Your task to perform on an android device: Find coffee shops on Maps Image 0: 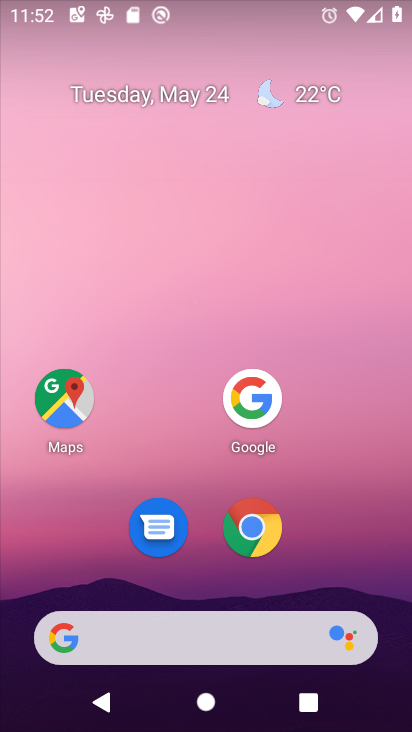
Step 0: click (70, 396)
Your task to perform on an android device: Find coffee shops on Maps Image 1: 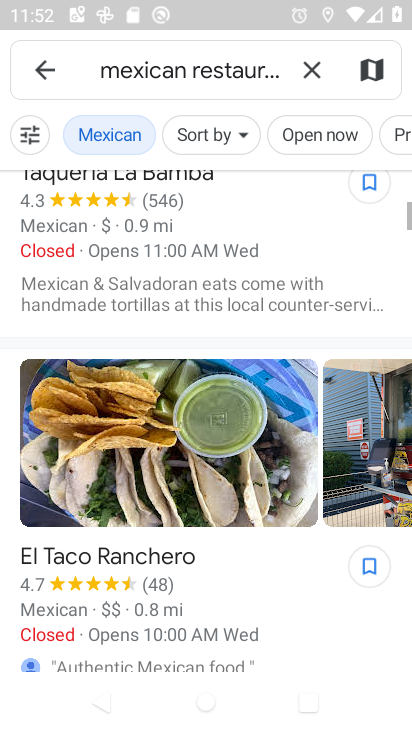
Step 1: click (317, 65)
Your task to perform on an android device: Find coffee shops on Maps Image 2: 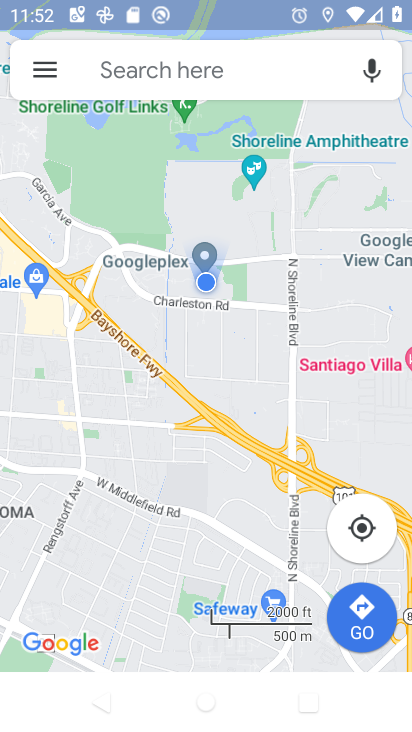
Step 2: click (255, 76)
Your task to perform on an android device: Find coffee shops on Maps Image 3: 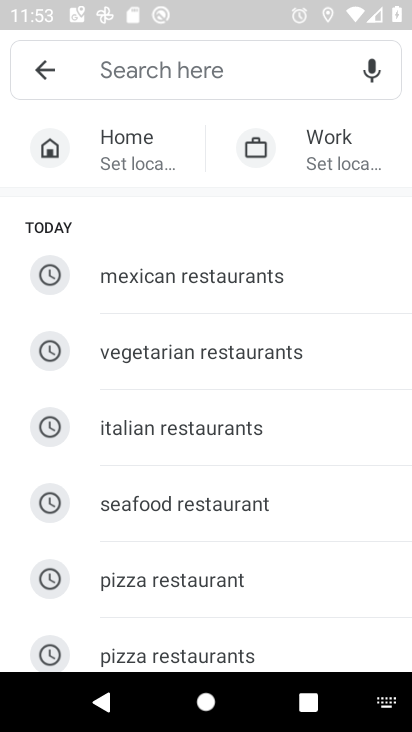
Step 3: drag from (257, 493) to (282, 165)
Your task to perform on an android device: Find coffee shops on Maps Image 4: 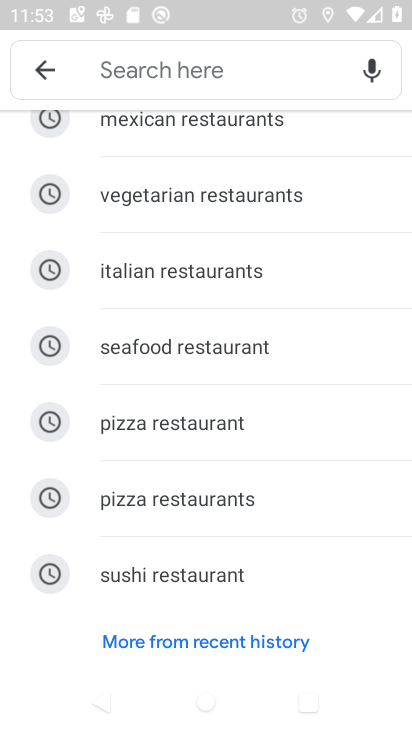
Step 4: type "coffee"
Your task to perform on an android device: Find coffee shops on Maps Image 5: 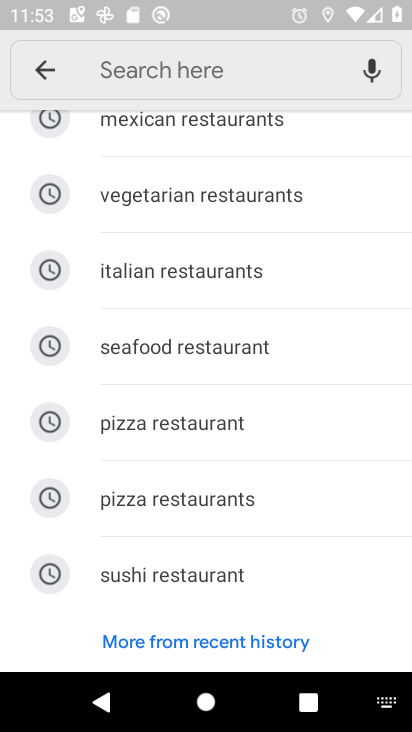
Step 5: click (230, 73)
Your task to perform on an android device: Find coffee shops on Maps Image 6: 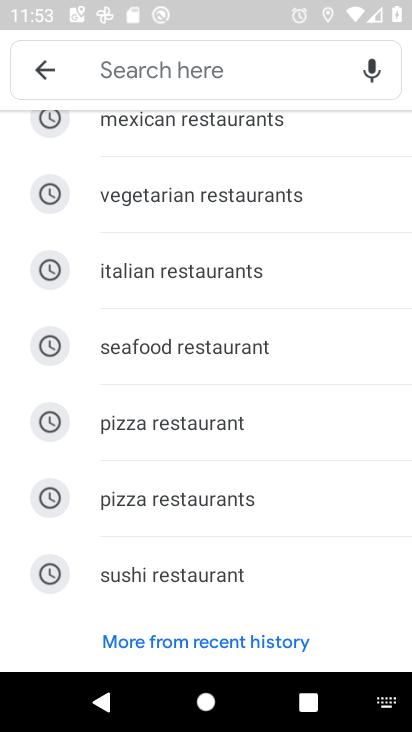
Step 6: type "coffee"
Your task to perform on an android device: Find coffee shops on Maps Image 7: 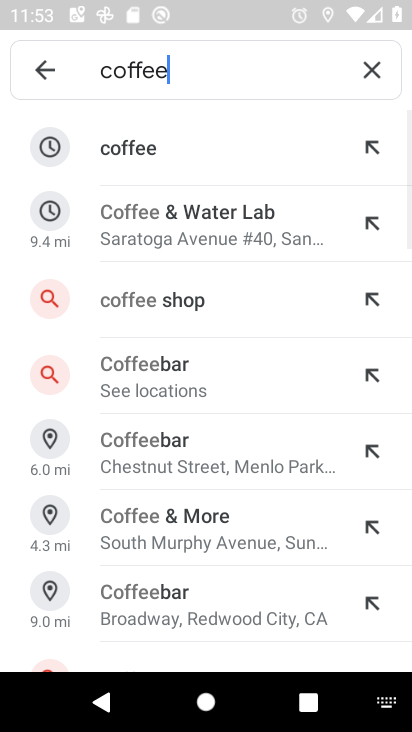
Step 7: click (161, 141)
Your task to perform on an android device: Find coffee shops on Maps Image 8: 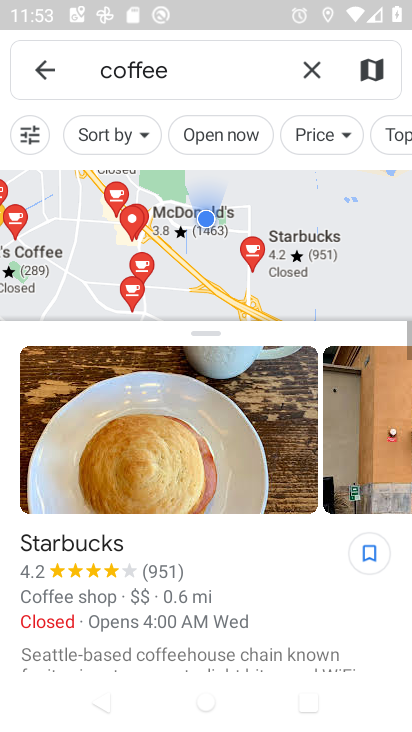
Step 8: task complete